Your task to perform on an android device: toggle wifi Image 0: 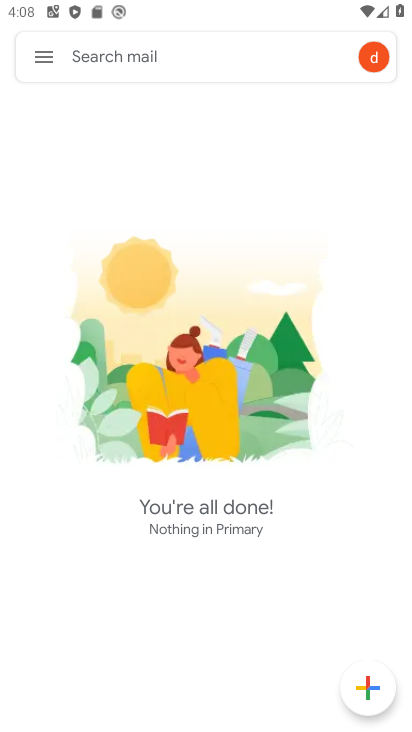
Step 0: press home button
Your task to perform on an android device: toggle wifi Image 1: 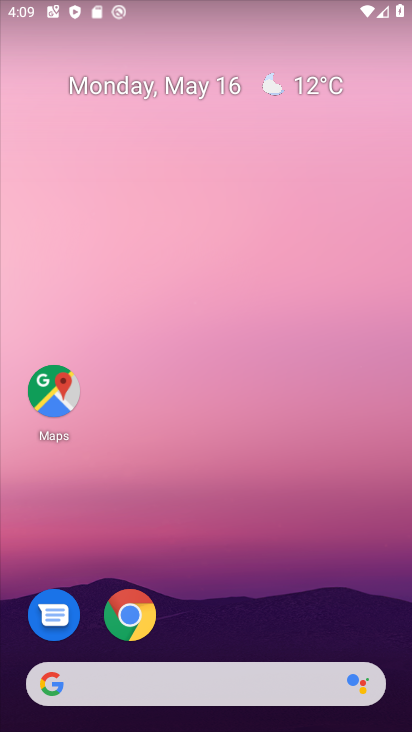
Step 1: drag from (191, 724) to (165, 236)
Your task to perform on an android device: toggle wifi Image 2: 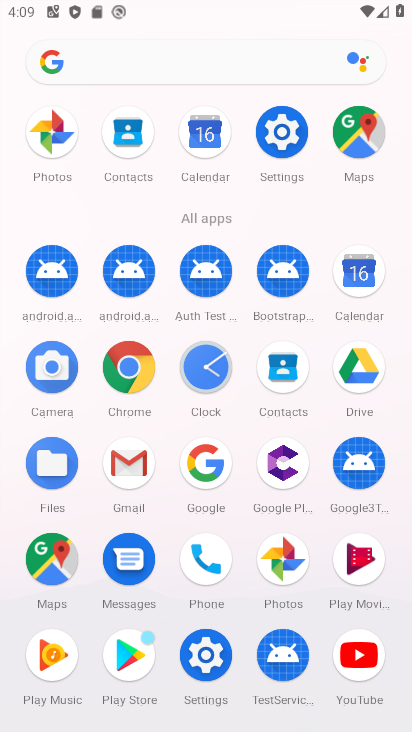
Step 2: click (277, 135)
Your task to perform on an android device: toggle wifi Image 3: 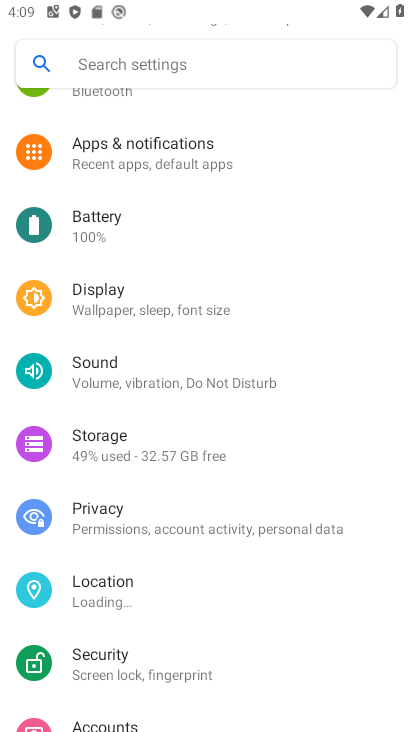
Step 3: drag from (191, 158) to (187, 610)
Your task to perform on an android device: toggle wifi Image 4: 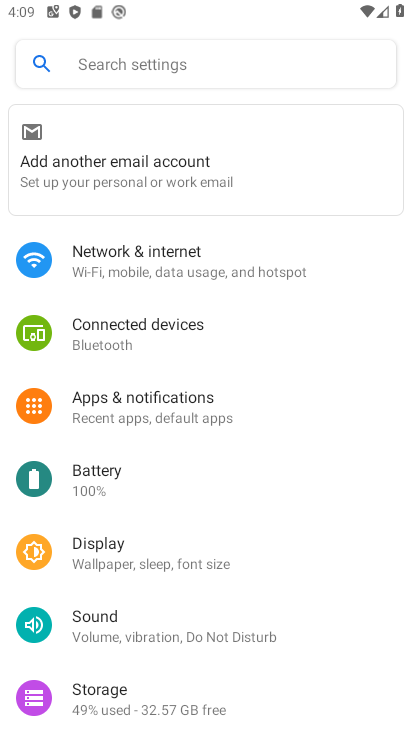
Step 4: click (168, 261)
Your task to perform on an android device: toggle wifi Image 5: 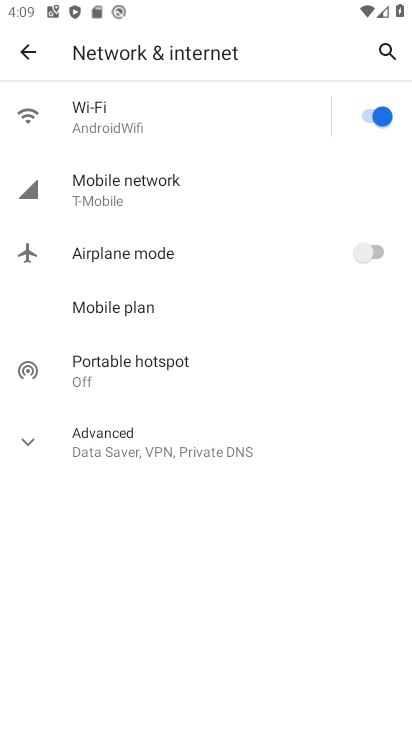
Step 5: click (372, 106)
Your task to perform on an android device: toggle wifi Image 6: 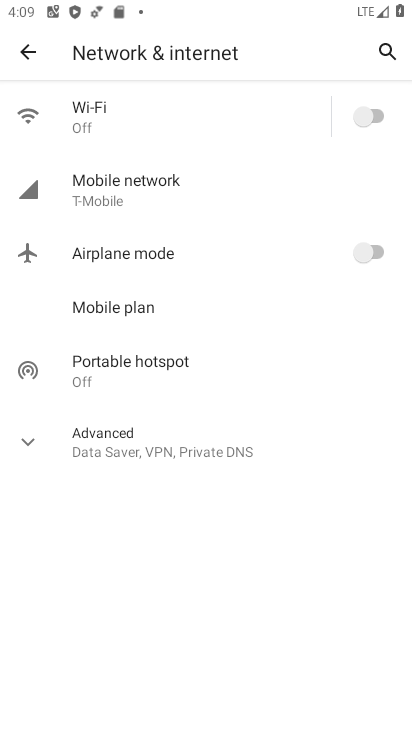
Step 6: task complete